Your task to perform on an android device: turn on priority inbox in the gmail app Image 0: 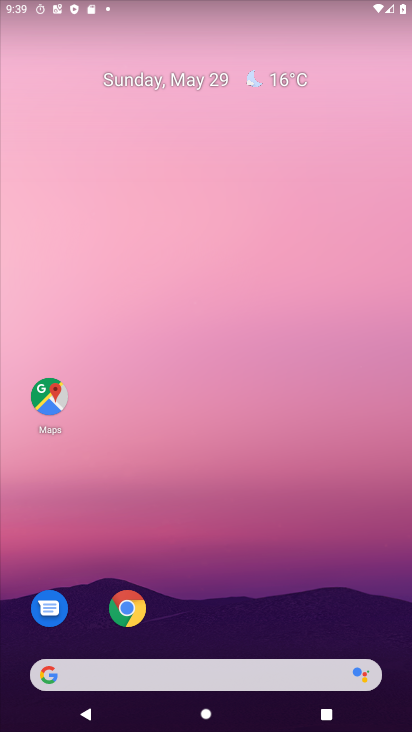
Step 0: drag from (229, 626) to (249, 157)
Your task to perform on an android device: turn on priority inbox in the gmail app Image 1: 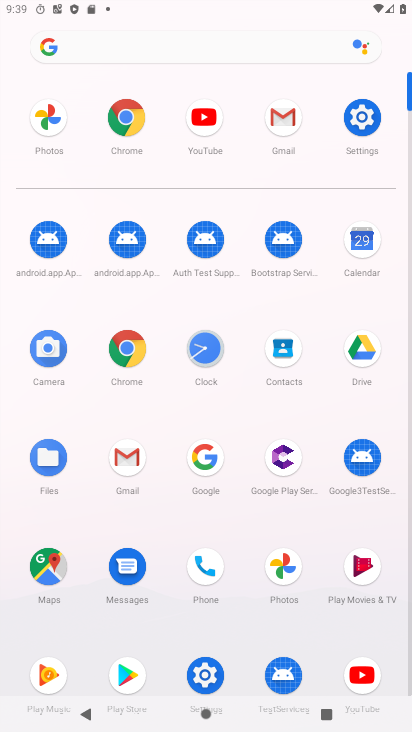
Step 1: click (277, 127)
Your task to perform on an android device: turn on priority inbox in the gmail app Image 2: 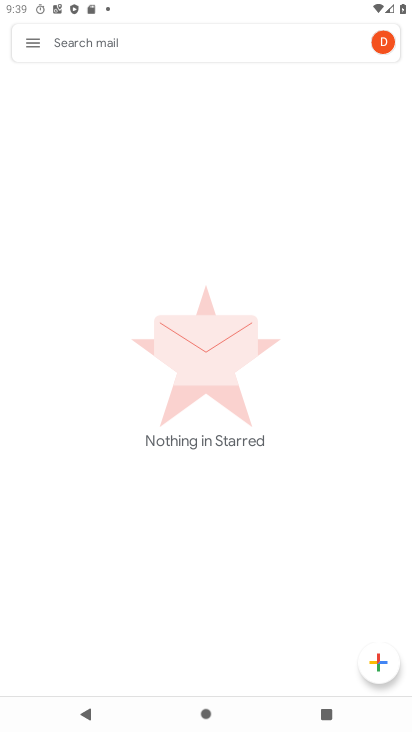
Step 2: click (28, 54)
Your task to perform on an android device: turn on priority inbox in the gmail app Image 3: 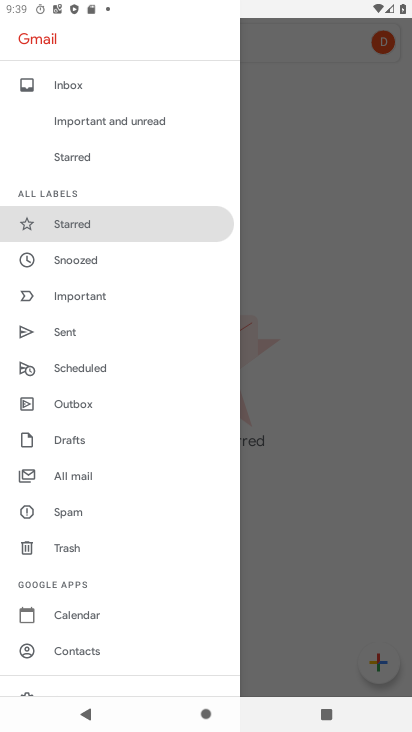
Step 3: drag from (98, 623) to (149, 286)
Your task to perform on an android device: turn on priority inbox in the gmail app Image 4: 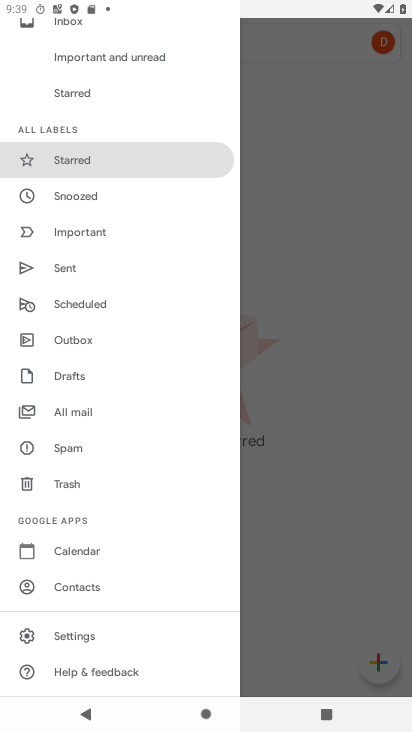
Step 4: click (63, 646)
Your task to perform on an android device: turn on priority inbox in the gmail app Image 5: 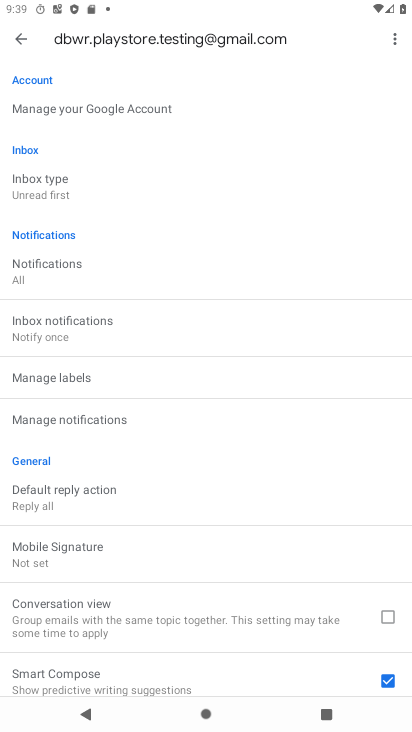
Step 5: click (35, 191)
Your task to perform on an android device: turn on priority inbox in the gmail app Image 6: 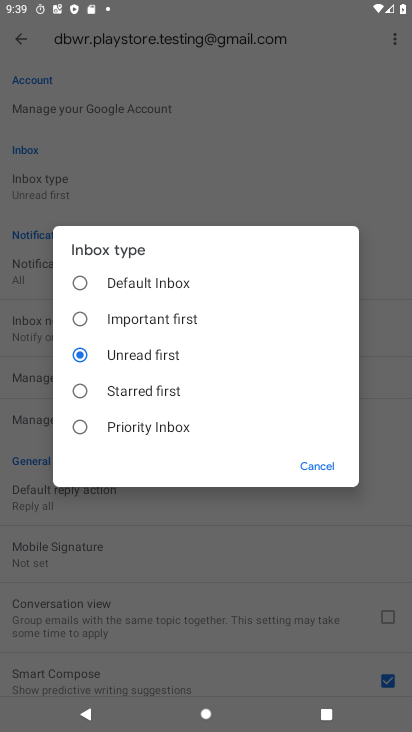
Step 6: click (78, 418)
Your task to perform on an android device: turn on priority inbox in the gmail app Image 7: 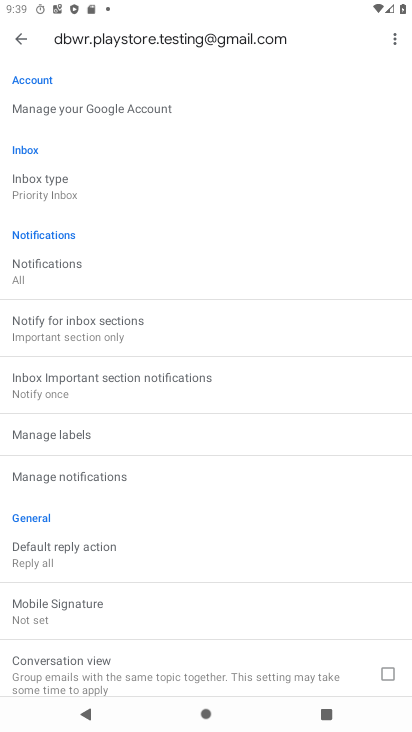
Step 7: task complete